Your task to perform on an android device: create a new album in the google photos Image 0: 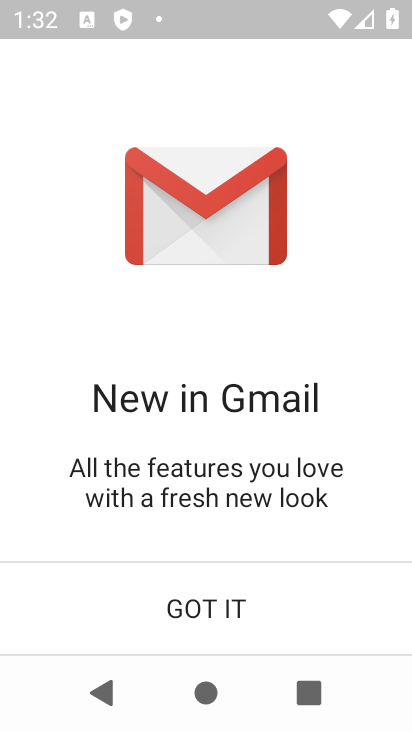
Step 0: press home button
Your task to perform on an android device: create a new album in the google photos Image 1: 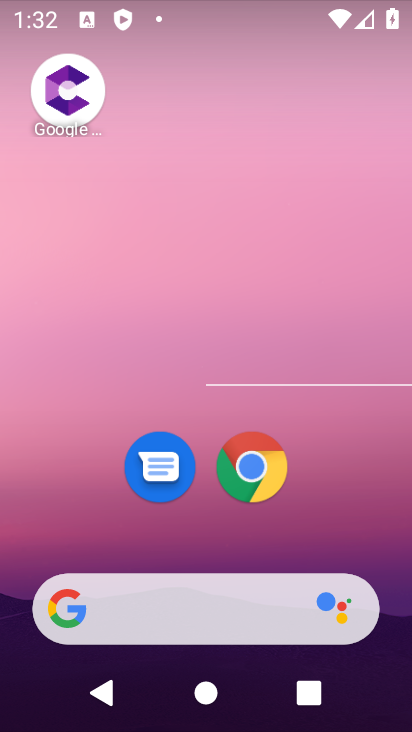
Step 1: drag from (341, 404) to (343, 179)
Your task to perform on an android device: create a new album in the google photos Image 2: 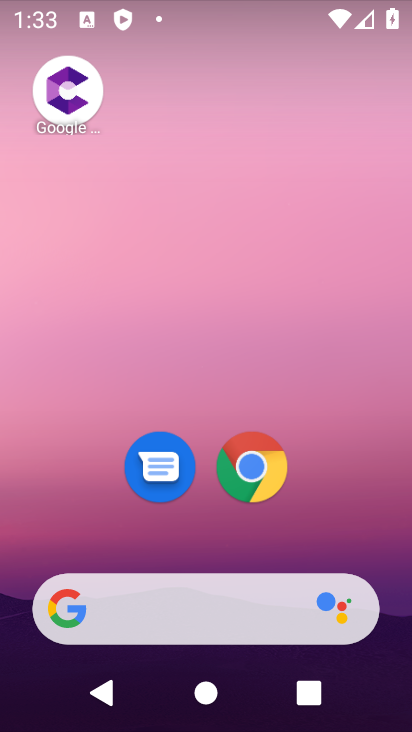
Step 2: drag from (330, 346) to (284, 128)
Your task to perform on an android device: create a new album in the google photos Image 3: 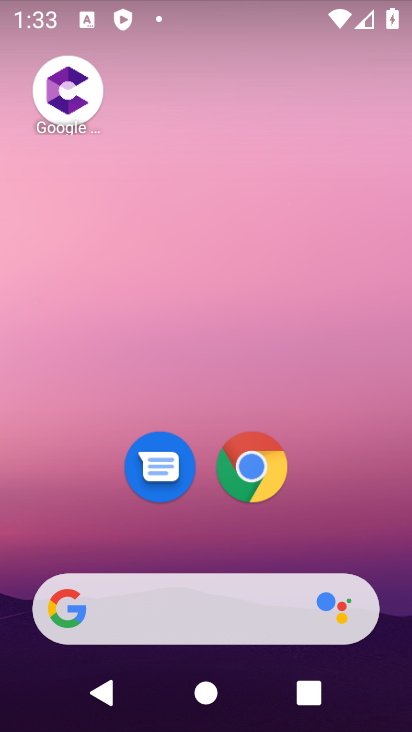
Step 3: drag from (269, 482) to (284, 22)
Your task to perform on an android device: create a new album in the google photos Image 4: 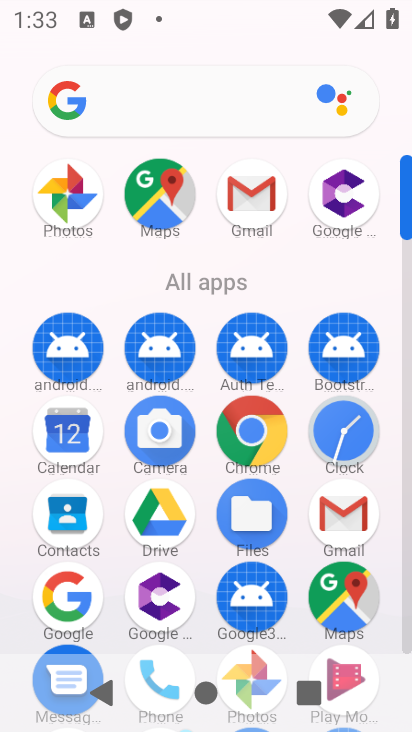
Step 4: click (343, 587)
Your task to perform on an android device: create a new album in the google photos Image 5: 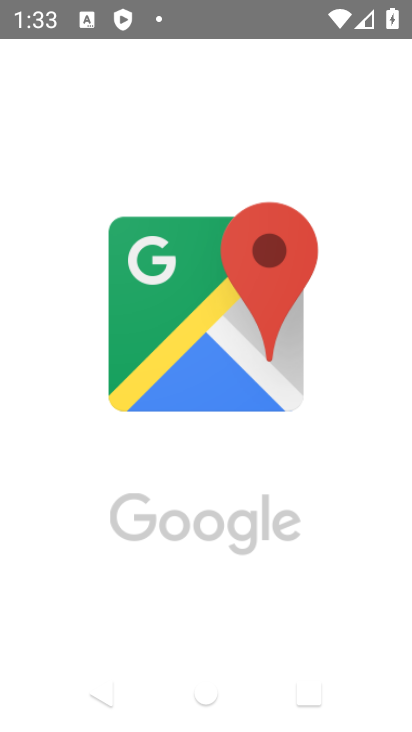
Step 5: task complete